Your task to perform on an android device: Open maps Image 0: 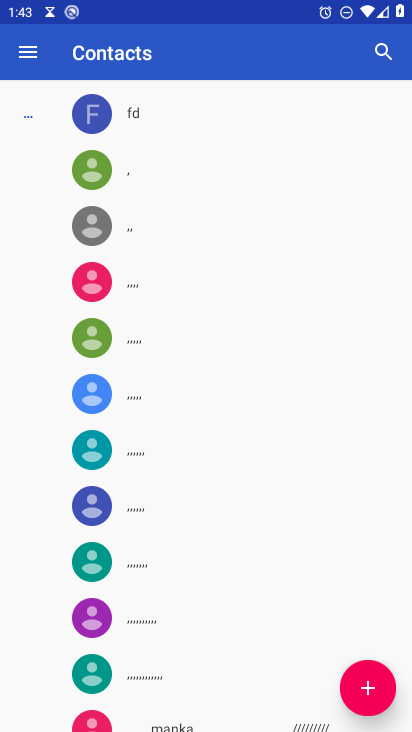
Step 0: press home button
Your task to perform on an android device: Open maps Image 1: 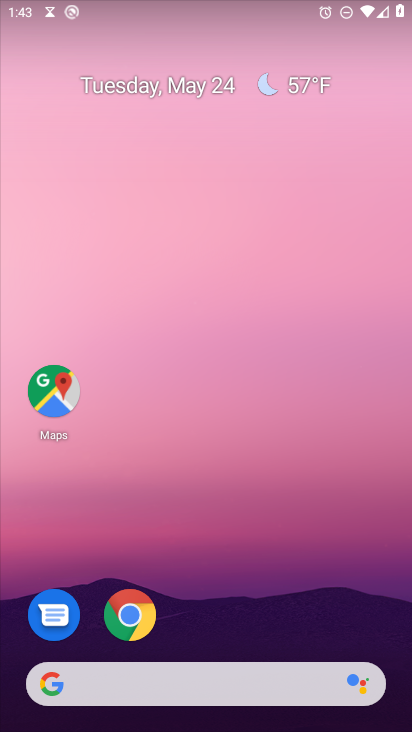
Step 1: click (60, 397)
Your task to perform on an android device: Open maps Image 2: 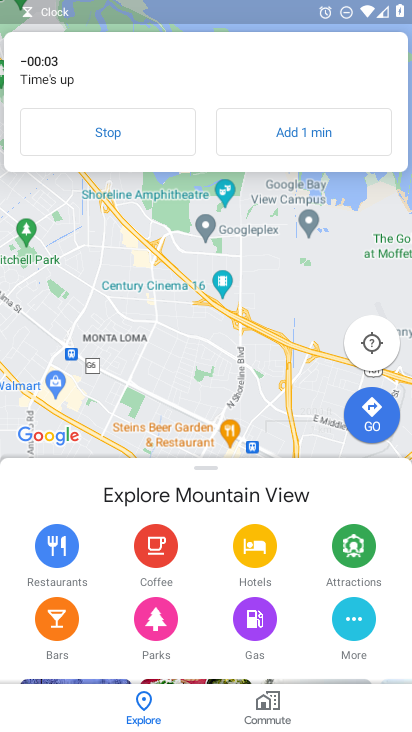
Step 2: click (144, 135)
Your task to perform on an android device: Open maps Image 3: 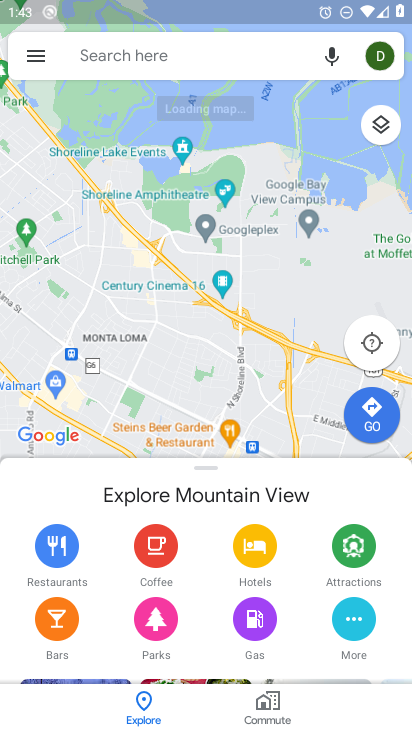
Step 3: task complete